Your task to perform on an android device: What's the weather? Image 0: 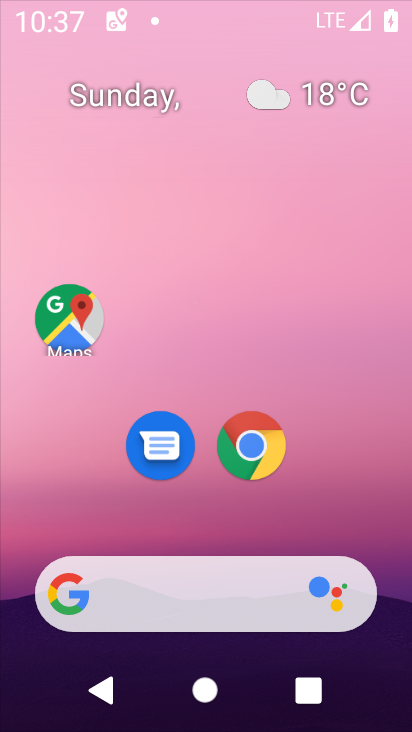
Step 0: press home button
Your task to perform on an android device: What's the weather? Image 1: 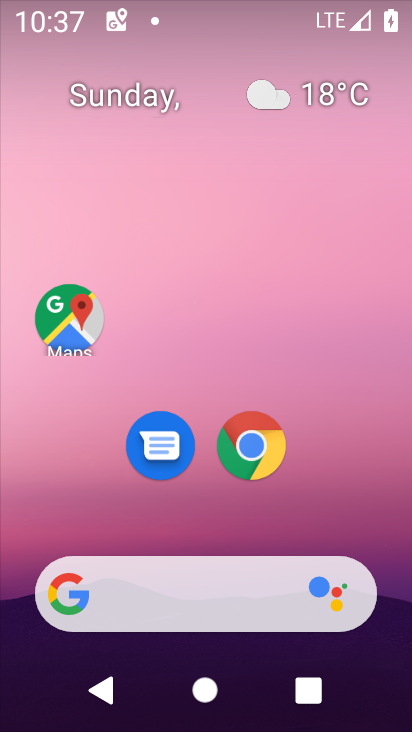
Step 1: click (333, 83)
Your task to perform on an android device: What's the weather? Image 2: 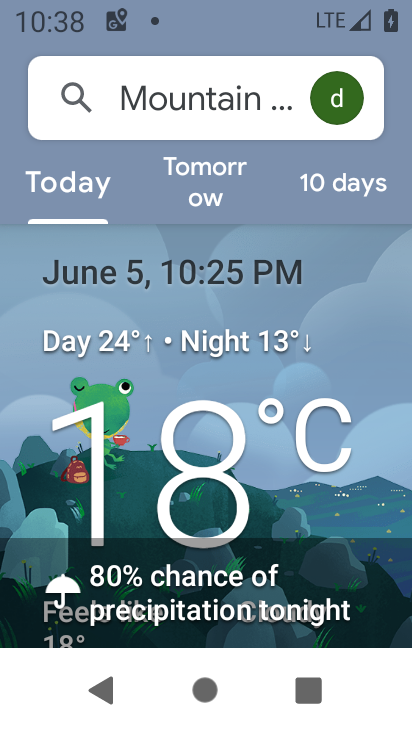
Step 2: task complete